Your task to perform on an android device: allow notifications from all sites in the chrome app Image 0: 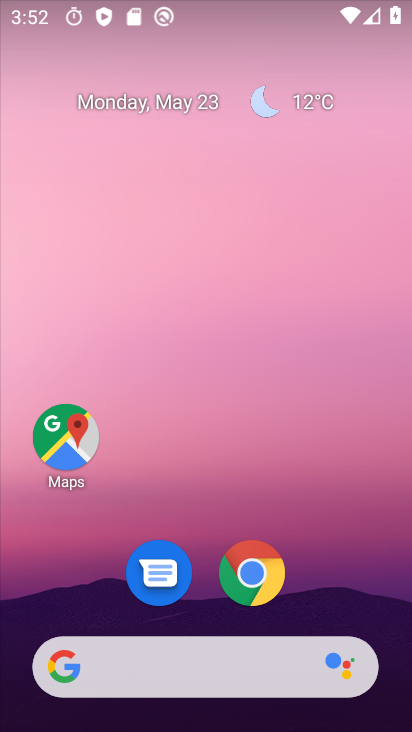
Step 0: press home button
Your task to perform on an android device: allow notifications from all sites in the chrome app Image 1: 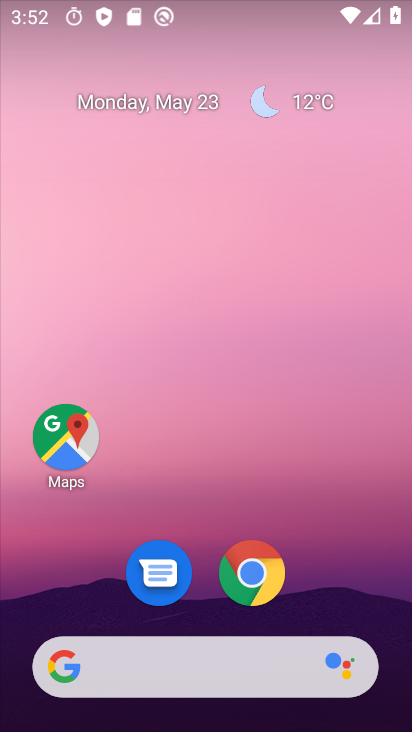
Step 1: drag from (12, 532) to (258, 87)
Your task to perform on an android device: allow notifications from all sites in the chrome app Image 2: 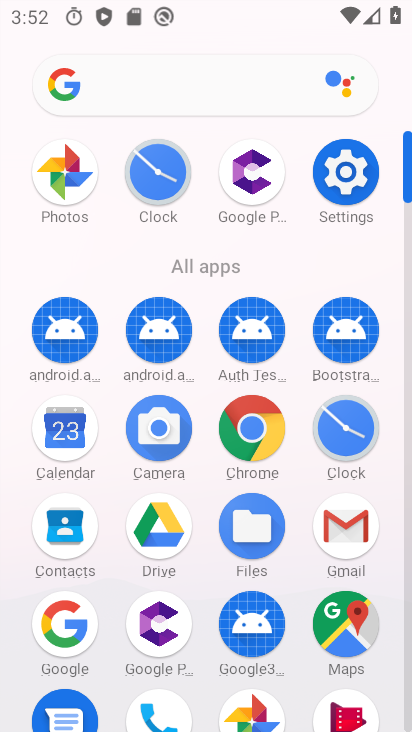
Step 2: click (356, 180)
Your task to perform on an android device: allow notifications from all sites in the chrome app Image 3: 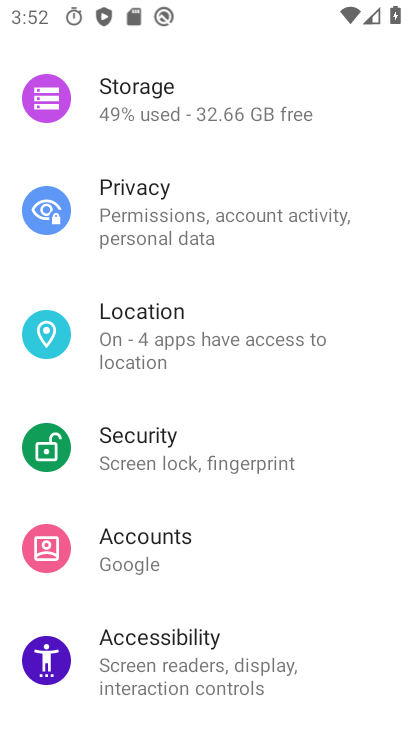
Step 3: drag from (269, 140) to (151, 547)
Your task to perform on an android device: allow notifications from all sites in the chrome app Image 4: 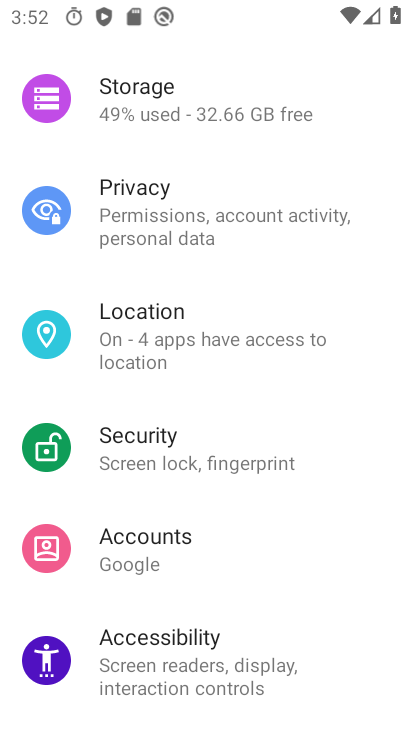
Step 4: drag from (112, 104) to (104, 562)
Your task to perform on an android device: allow notifications from all sites in the chrome app Image 5: 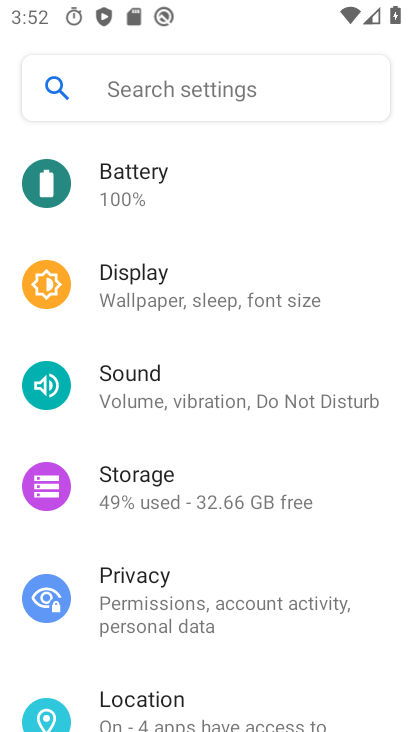
Step 5: drag from (104, 165) to (72, 524)
Your task to perform on an android device: allow notifications from all sites in the chrome app Image 6: 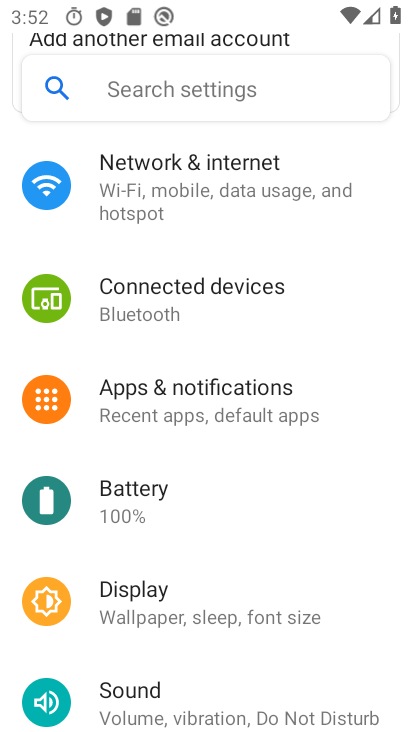
Step 6: click (198, 400)
Your task to perform on an android device: allow notifications from all sites in the chrome app Image 7: 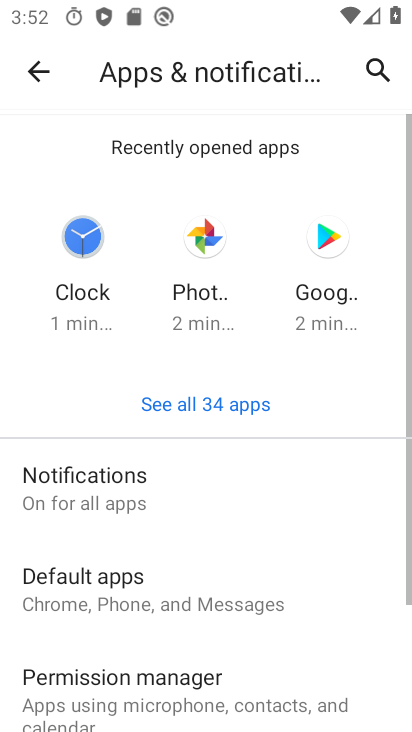
Step 7: press home button
Your task to perform on an android device: allow notifications from all sites in the chrome app Image 8: 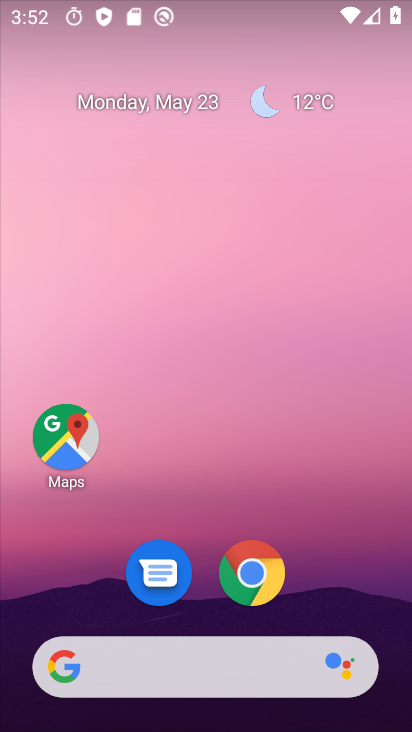
Step 8: click (250, 576)
Your task to perform on an android device: allow notifications from all sites in the chrome app Image 9: 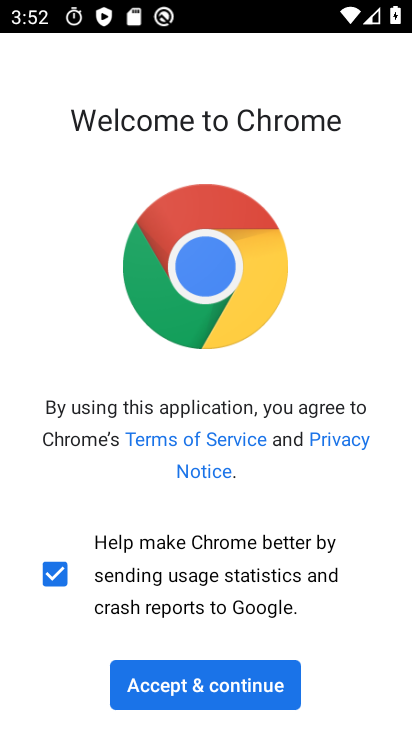
Step 9: click (230, 684)
Your task to perform on an android device: allow notifications from all sites in the chrome app Image 10: 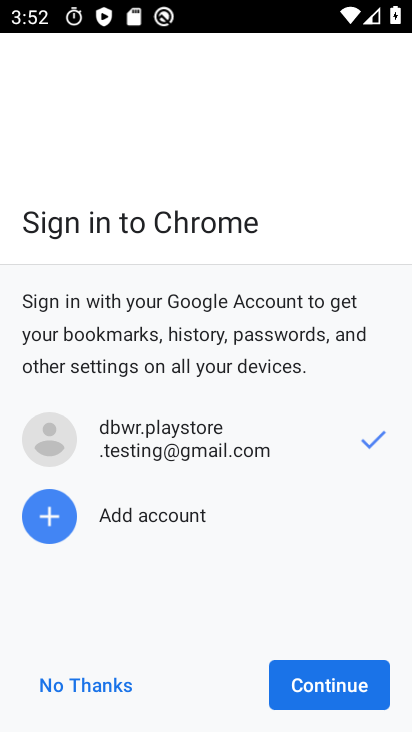
Step 10: click (103, 681)
Your task to perform on an android device: allow notifications from all sites in the chrome app Image 11: 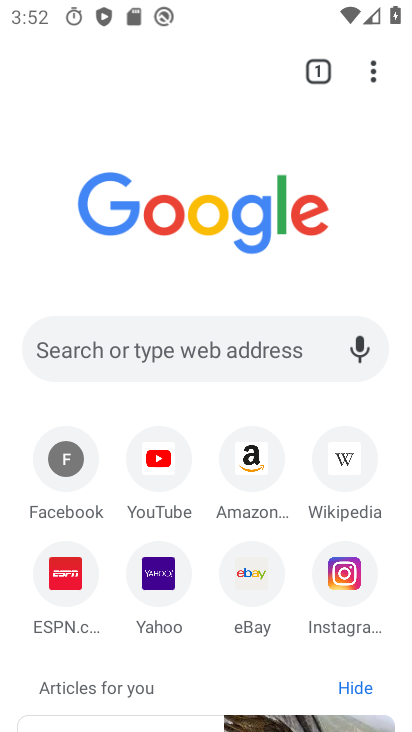
Step 11: click (373, 73)
Your task to perform on an android device: allow notifications from all sites in the chrome app Image 12: 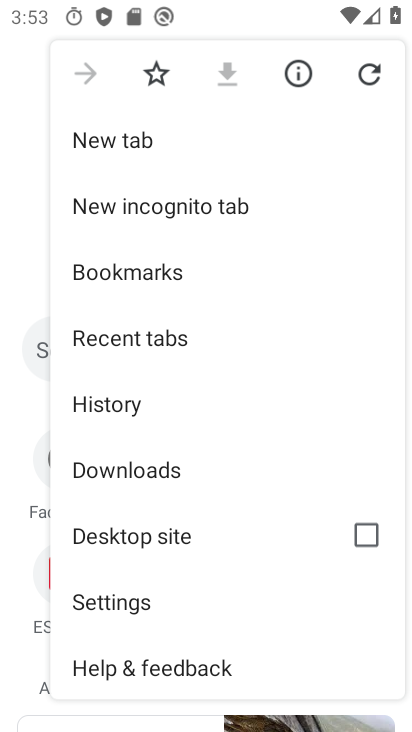
Step 12: press back button
Your task to perform on an android device: allow notifications from all sites in the chrome app Image 13: 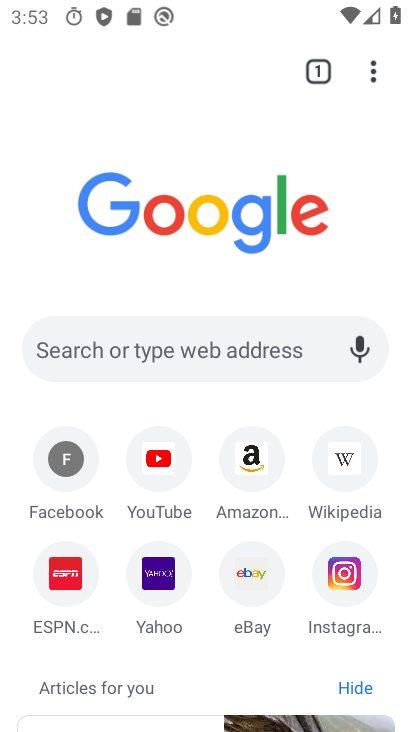
Step 13: click (369, 67)
Your task to perform on an android device: allow notifications from all sites in the chrome app Image 14: 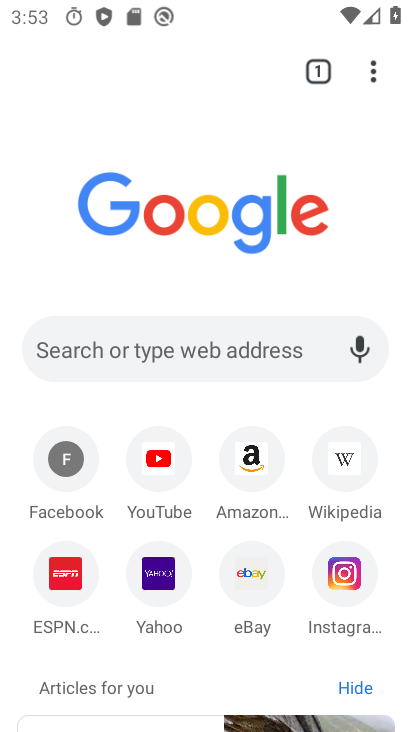
Step 14: click (369, 67)
Your task to perform on an android device: allow notifications from all sites in the chrome app Image 15: 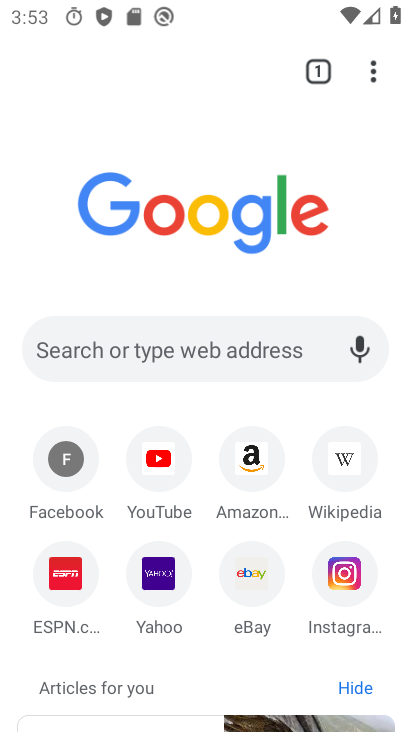
Step 15: click (372, 77)
Your task to perform on an android device: allow notifications from all sites in the chrome app Image 16: 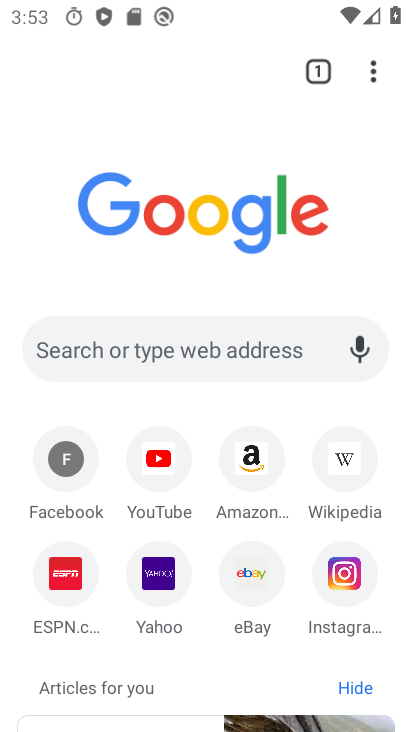
Step 16: click (372, 77)
Your task to perform on an android device: allow notifications from all sites in the chrome app Image 17: 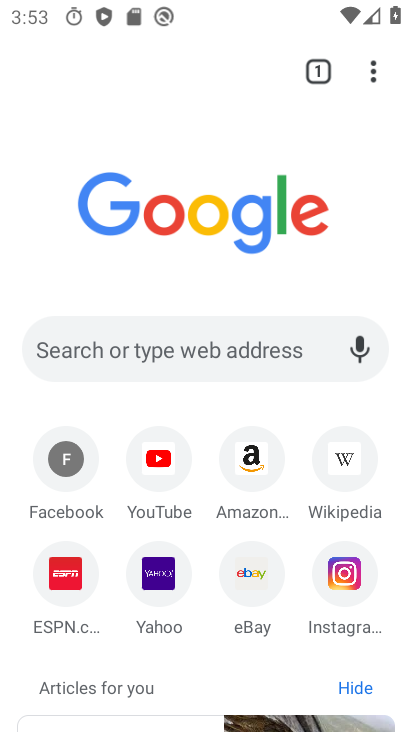
Step 17: click (369, 70)
Your task to perform on an android device: allow notifications from all sites in the chrome app Image 18: 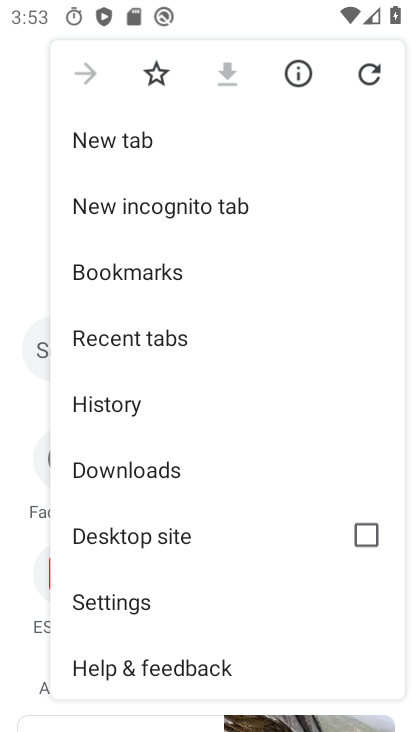
Step 18: click (78, 610)
Your task to perform on an android device: allow notifications from all sites in the chrome app Image 19: 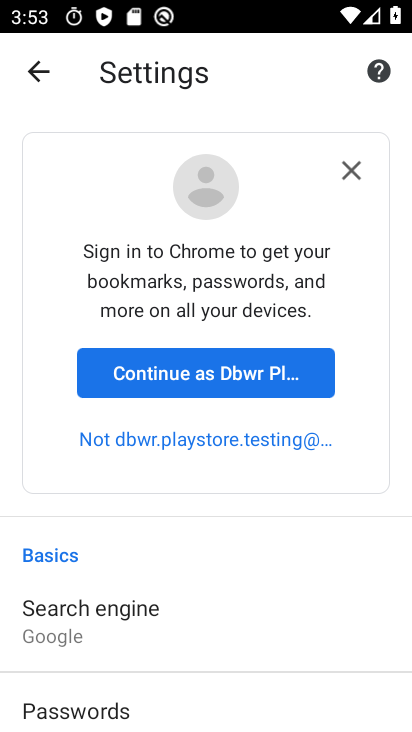
Step 19: click (356, 173)
Your task to perform on an android device: allow notifications from all sites in the chrome app Image 20: 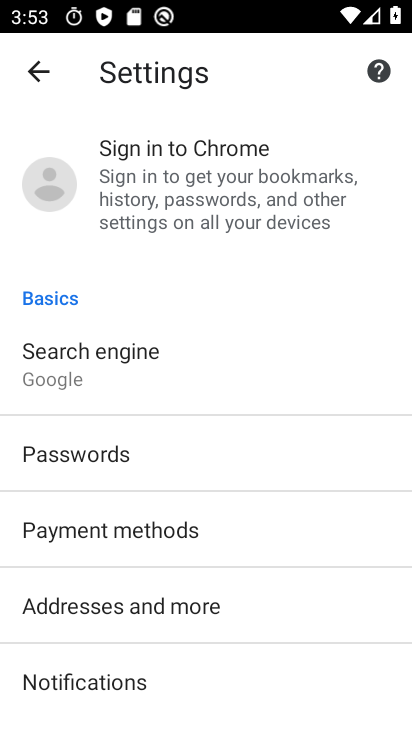
Step 20: drag from (33, 530) to (190, 279)
Your task to perform on an android device: allow notifications from all sites in the chrome app Image 21: 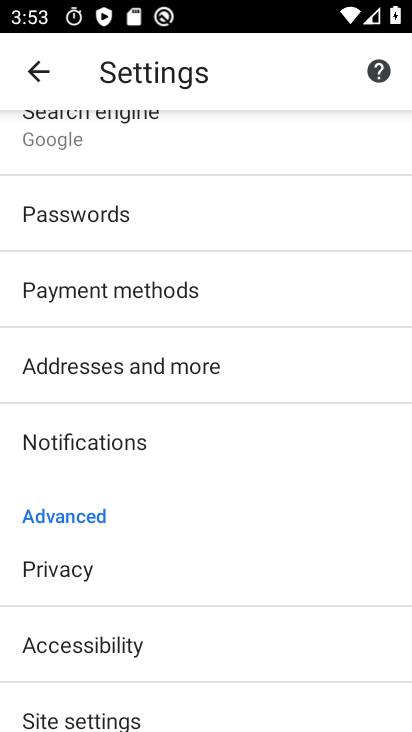
Step 21: click (100, 706)
Your task to perform on an android device: allow notifications from all sites in the chrome app Image 22: 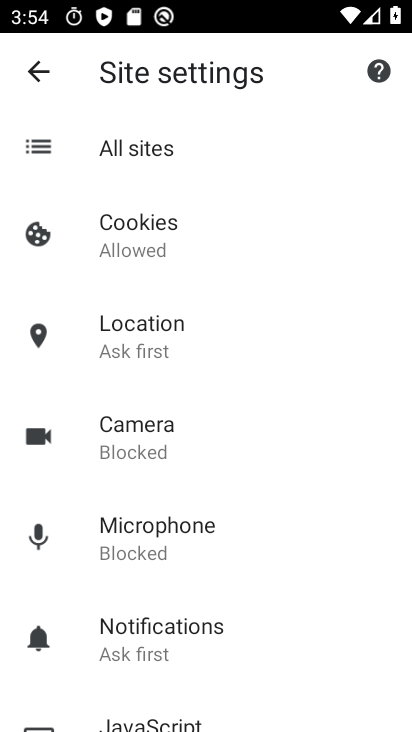
Step 22: click (133, 609)
Your task to perform on an android device: allow notifications from all sites in the chrome app Image 23: 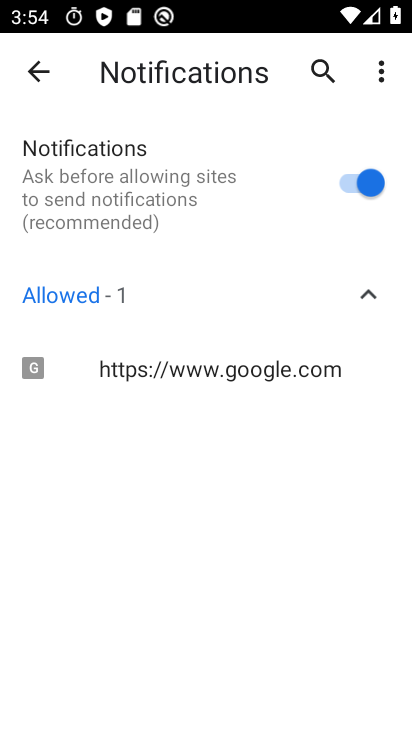
Step 23: task complete